Your task to perform on an android device: turn off airplane mode Image 0: 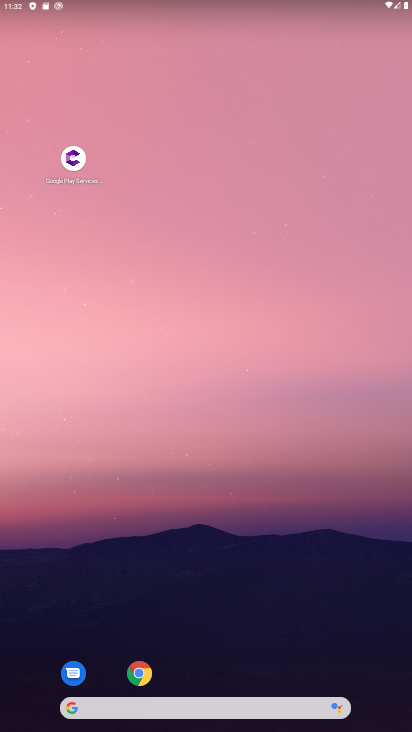
Step 0: drag from (236, 635) to (257, 133)
Your task to perform on an android device: turn off airplane mode Image 1: 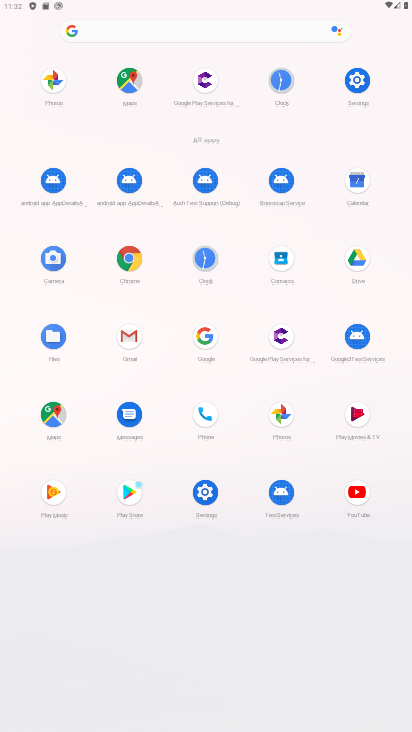
Step 1: click (207, 491)
Your task to perform on an android device: turn off airplane mode Image 2: 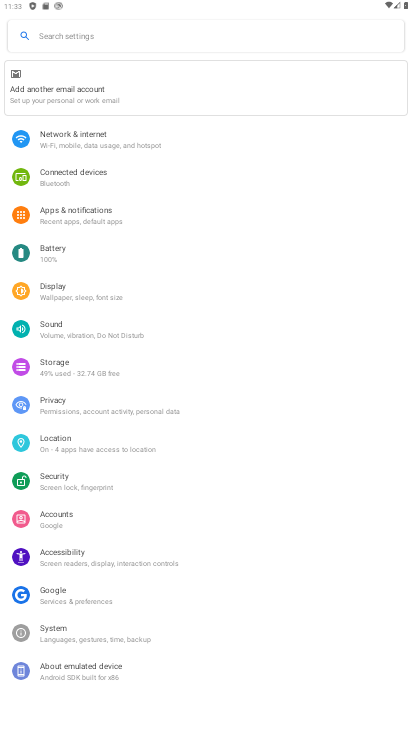
Step 2: click (104, 136)
Your task to perform on an android device: turn off airplane mode Image 3: 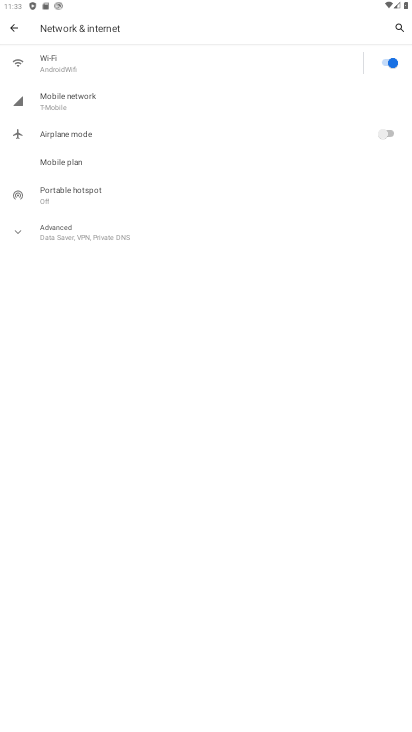
Step 3: task complete